Your task to perform on an android device: open chrome privacy settings Image 0: 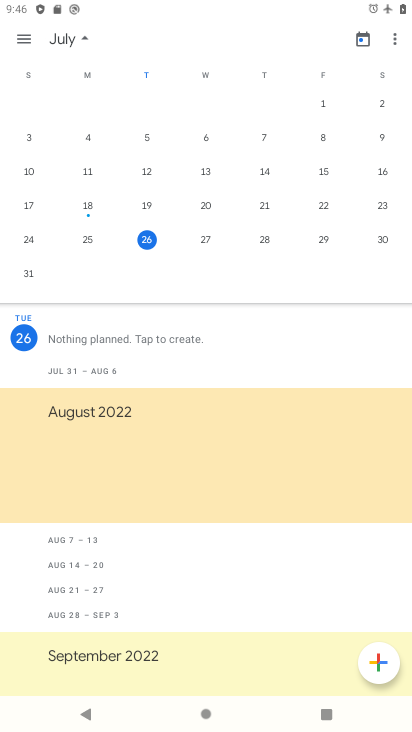
Step 0: press home button
Your task to perform on an android device: open chrome privacy settings Image 1: 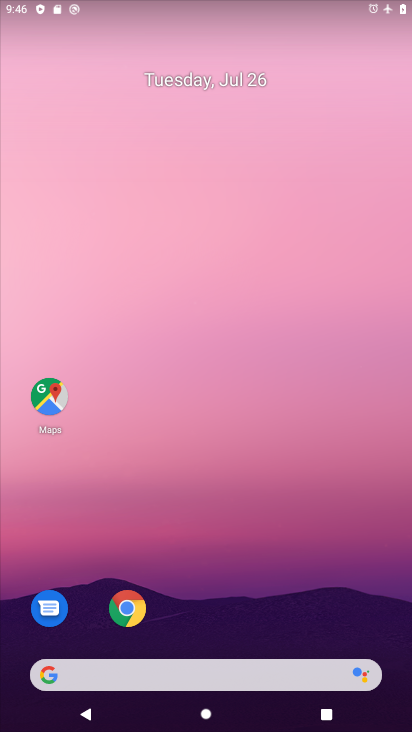
Step 1: click (127, 617)
Your task to perform on an android device: open chrome privacy settings Image 2: 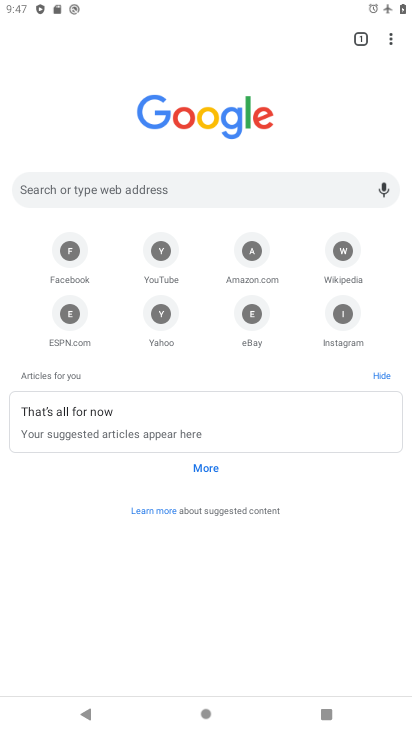
Step 2: click (388, 40)
Your task to perform on an android device: open chrome privacy settings Image 3: 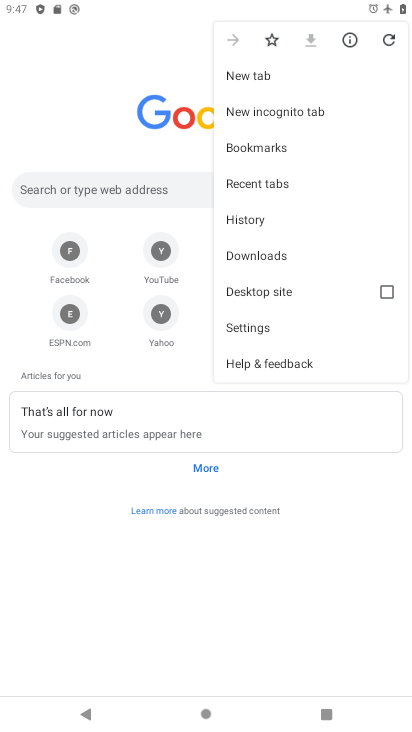
Step 3: click (255, 321)
Your task to perform on an android device: open chrome privacy settings Image 4: 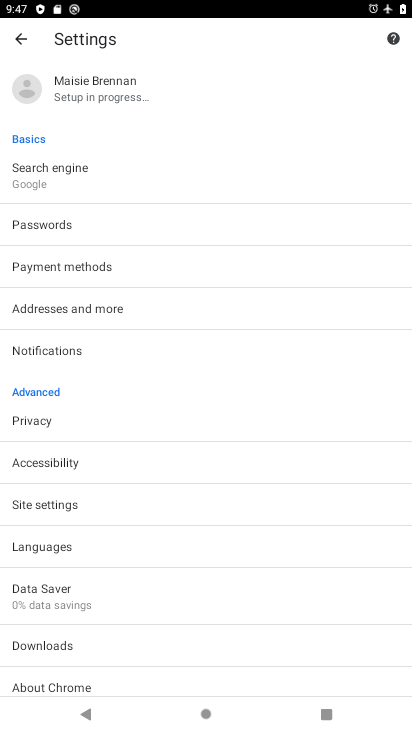
Step 4: click (38, 418)
Your task to perform on an android device: open chrome privacy settings Image 5: 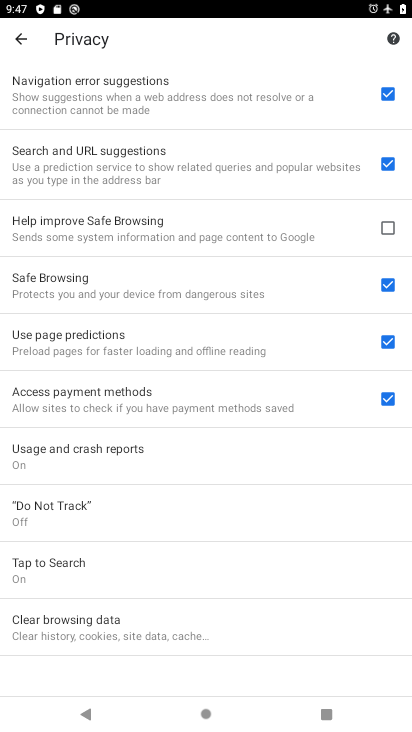
Step 5: task complete